Your task to perform on an android device: Is it going to rain tomorrow? Image 0: 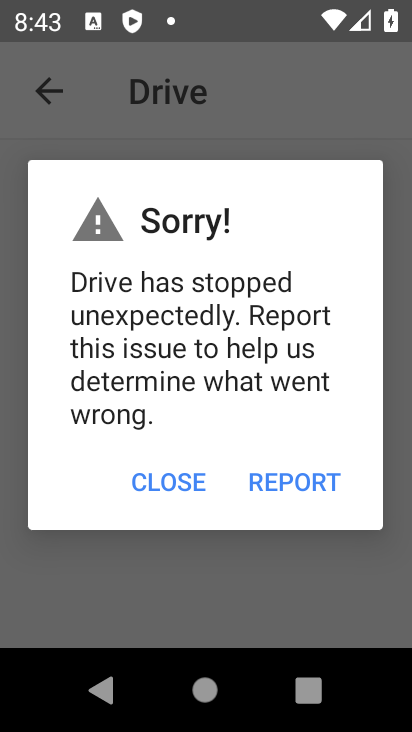
Step 0: press home button
Your task to perform on an android device: Is it going to rain tomorrow? Image 1: 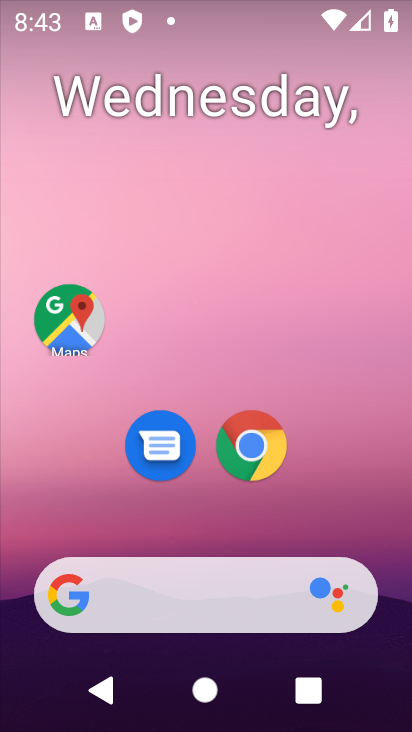
Step 1: drag from (377, 534) to (51, 8)
Your task to perform on an android device: Is it going to rain tomorrow? Image 2: 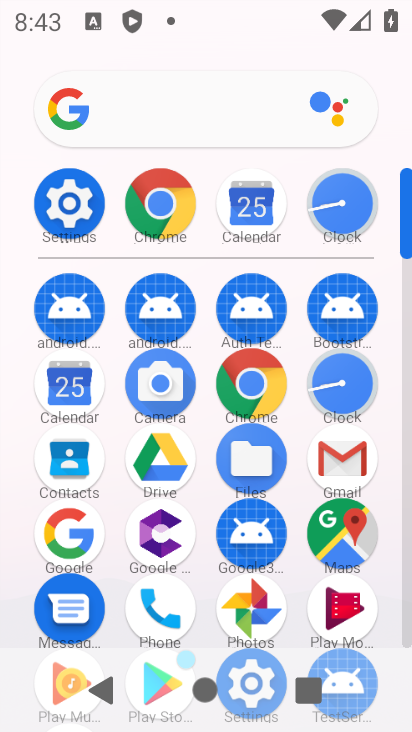
Step 2: click (76, 115)
Your task to perform on an android device: Is it going to rain tomorrow? Image 3: 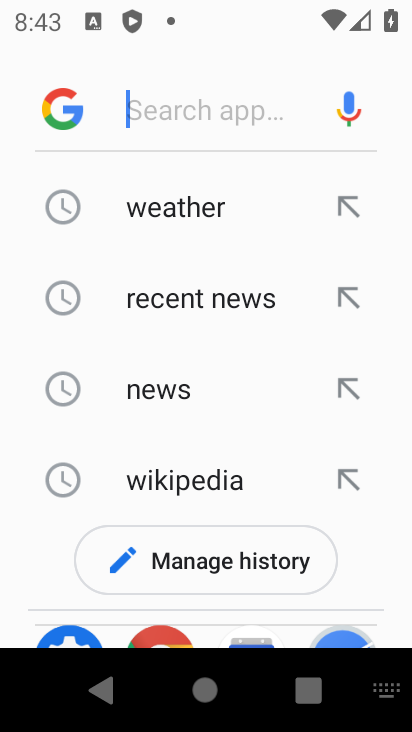
Step 3: click (75, 115)
Your task to perform on an android device: Is it going to rain tomorrow? Image 4: 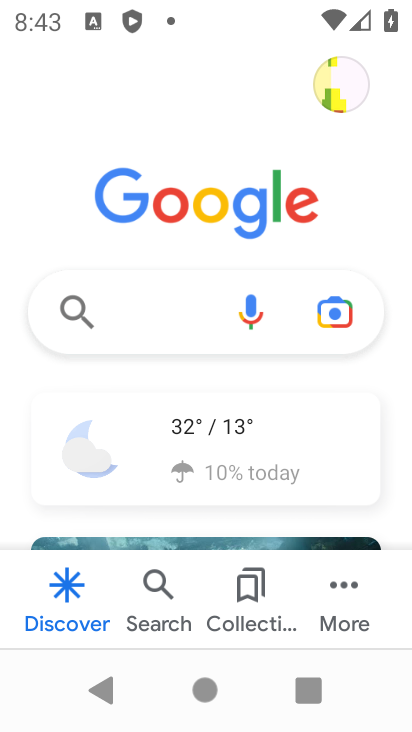
Step 4: click (200, 408)
Your task to perform on an android device: Is it going to rain tomorrow? Image 5: 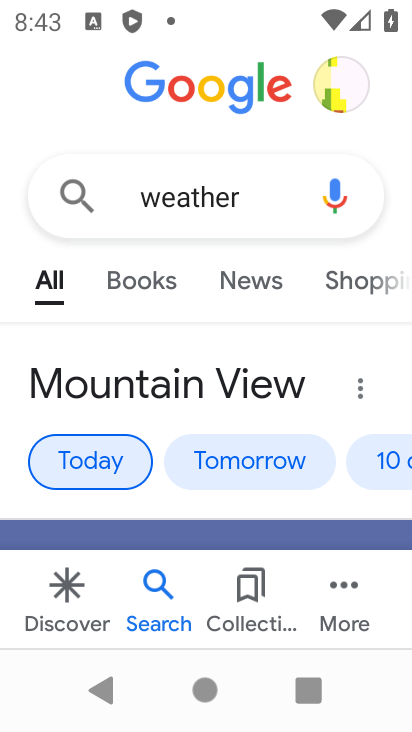
Step 5: task complete